Your task to perform on an android device: Open calendar and show me the first week of next month Image 0: 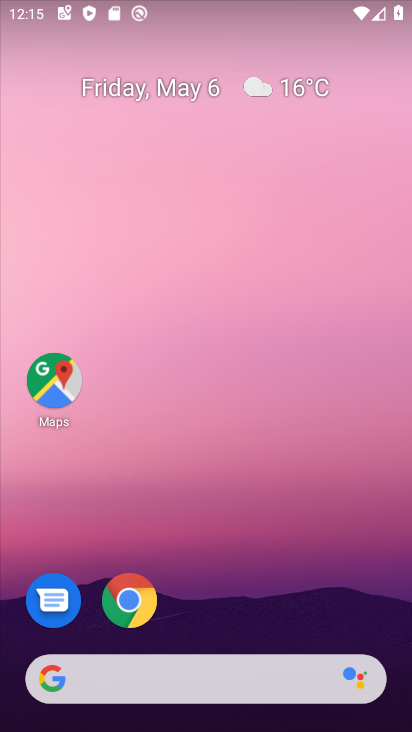
Step 0: drag from (192, 600) to (205, 16)
Your task to perform on an android device: Open calendar and show me the first week of next month Image 1: 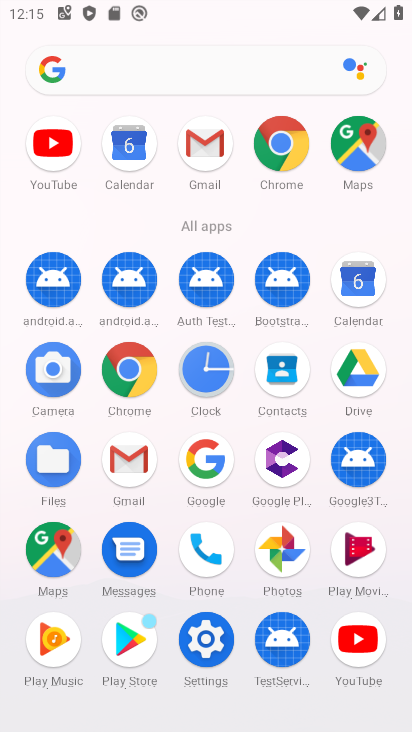
Step 1: click (372, 283)
Your task to perform on an android device: Open calendar and show me the first week of next month Image 2: 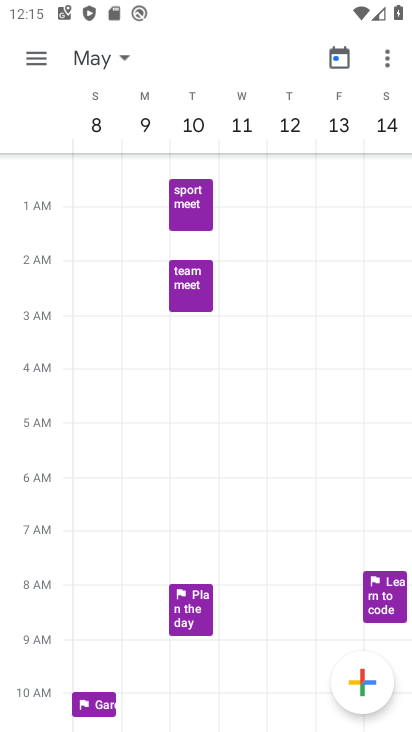
Step 2: click (121, 57)
Your task to perform on an android device: Open calendar and show me the first week of next month Image 3: 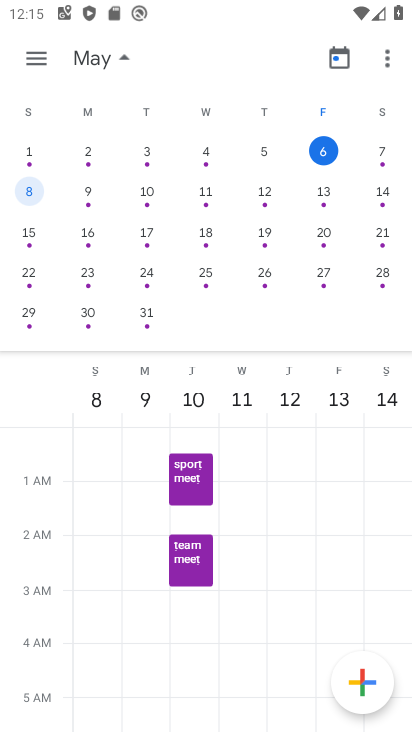
Step 3: task complete